Your task to perform on an android device: check android version Image 0: 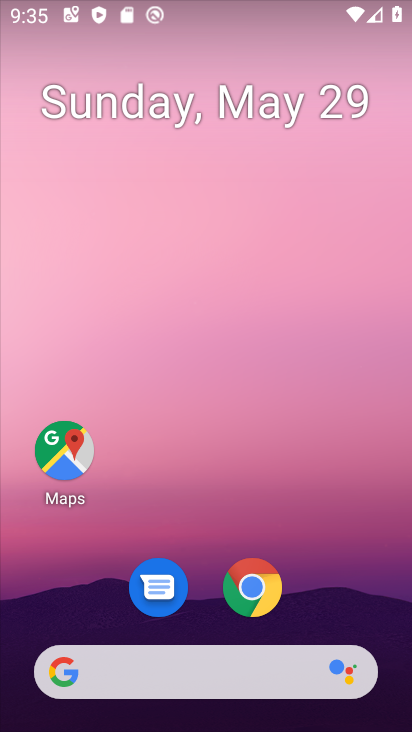
Step 0: drag from (201, 556) to (291, 34)
Your task to perform on an android device: check android version Image 1: 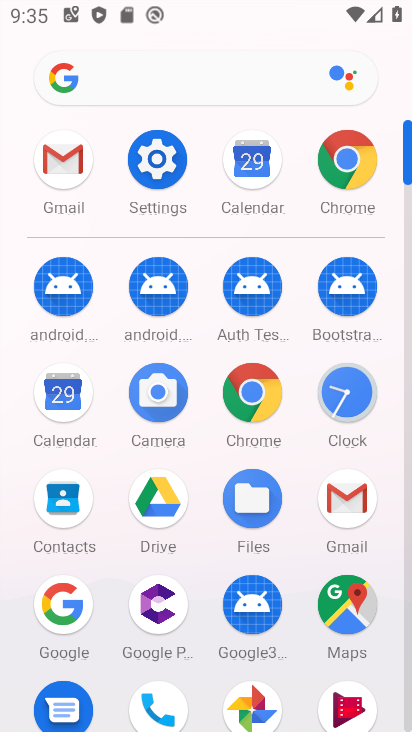
Step 1: click (166, 153)
Your task to perform on an android device: check android version Image 2: 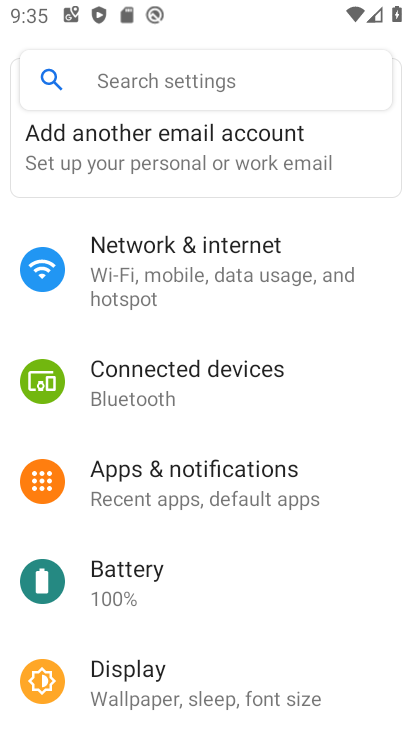
Step 2: drag from (174, 655) to (266, 130)
Your task to perform on an android device: check android version Image 3: 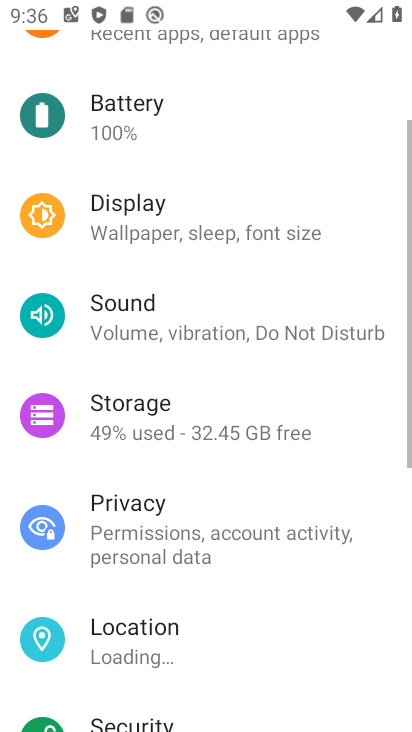
Step 3: drag from (167, 612) to (255, 70)
Your task to perform on an android device: check android version Image 4: 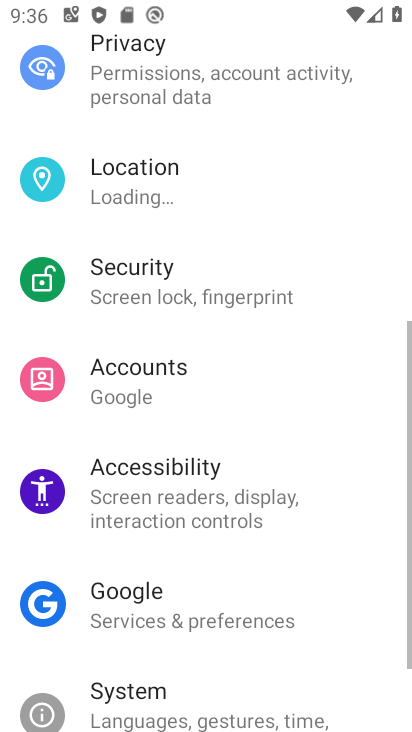
Step 4: drag from (182, 664) to (321, 49)
Your task to perform on an android device: check android version Image 5: 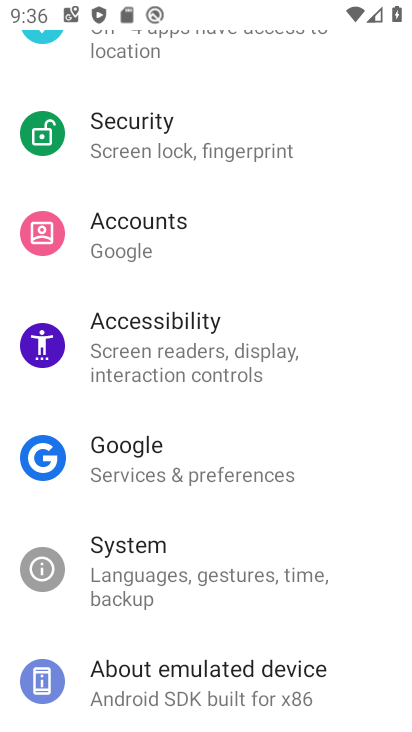
Step 5: click (162, 694)
Your task to perform on an android device: check android version Image 6: 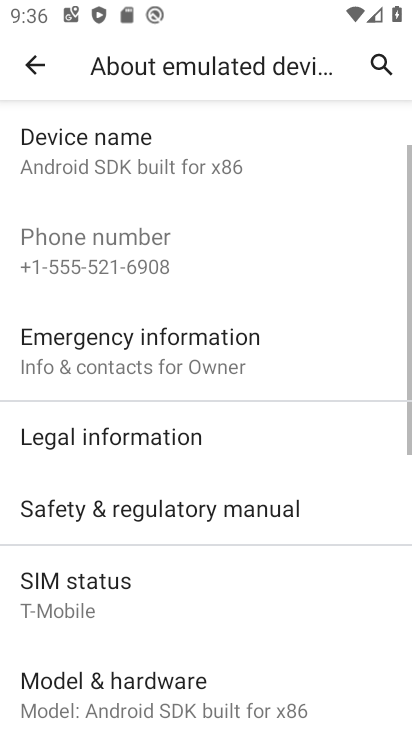
Step 6: drag from (150, 655) to (294, 93)
Your task to perform on an android device: check android version Image 7: 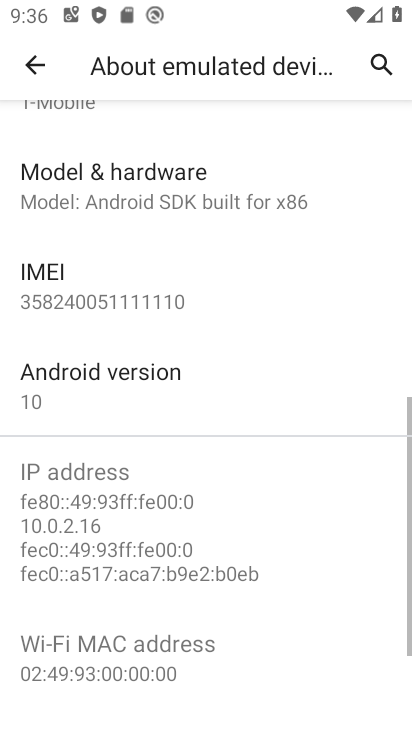
Step 7: click (117, 389)
Your task to perform on an android device: check android version Image 8: 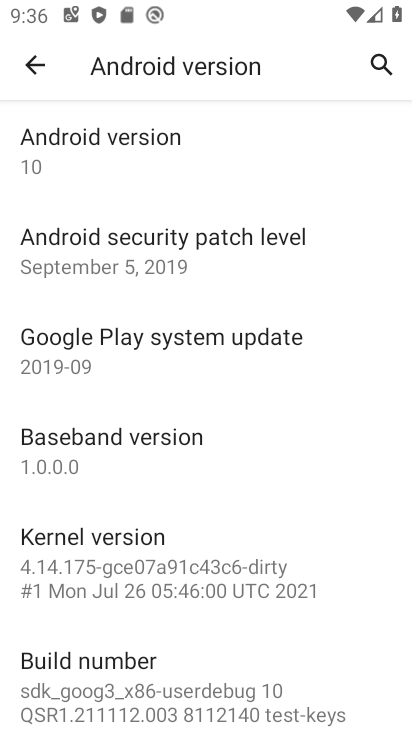
Step 8: task complete